Your task to perform on an android device: Do I have any events this weekend? Image 0: 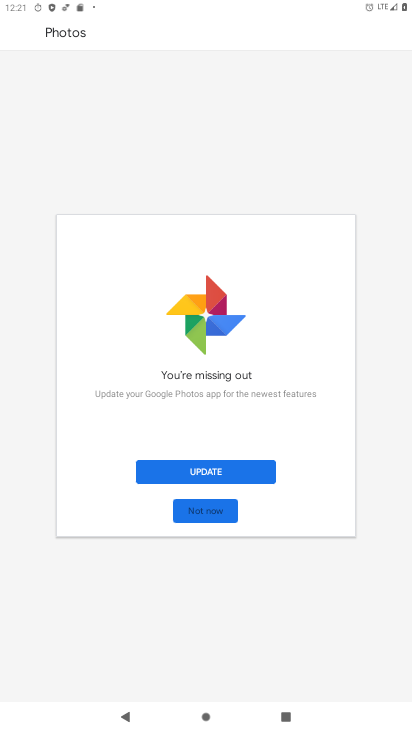
Step 0: press home button
Your task to perform on an android device: Do I have any events this weekend? Image 1: 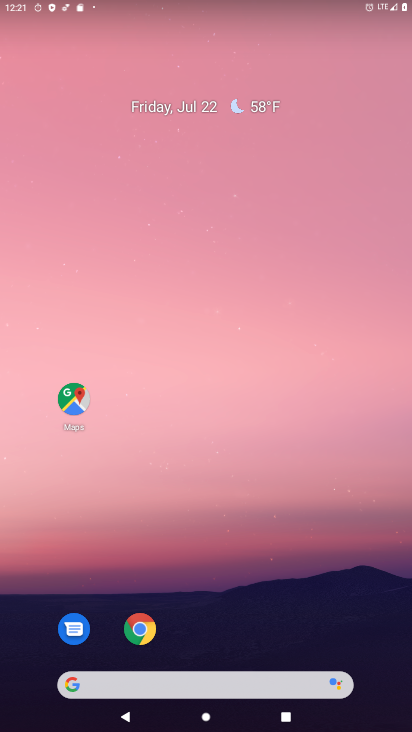
Step 1: drag from (321, 596) to (363, 130)
Your task to perform on an android device: Do I have any events this weekend? Image 2: 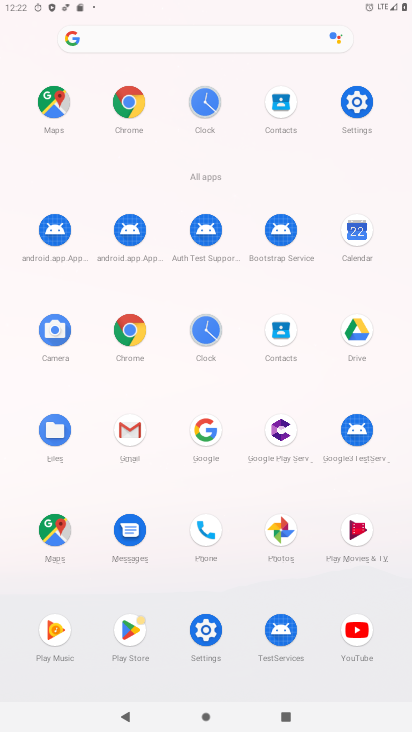
Step 2: click (355, 243)
Your task to perform on an android device: Do I have any events this weekend? Image 3: 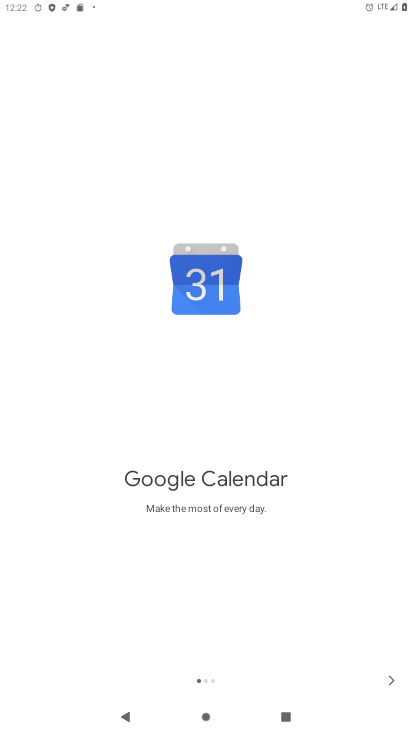
Step 3: click (384, 683)
Your task to perform on an android device: Do I have any events this weekend? Image 4: 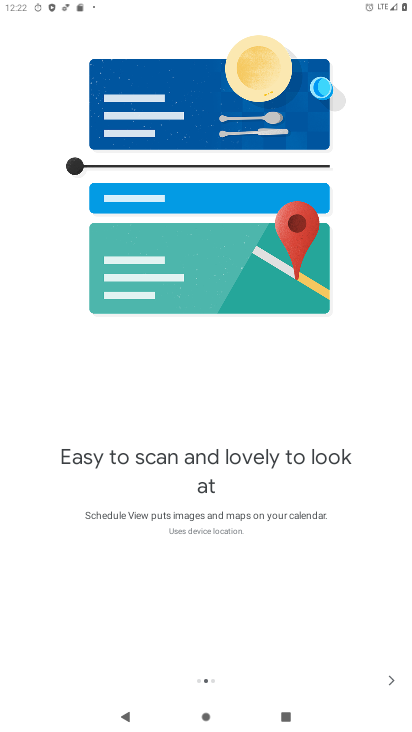
Step 4: click (384, 683)
Your task to perform on an android device: Do I have any events this weekend? Image 5: 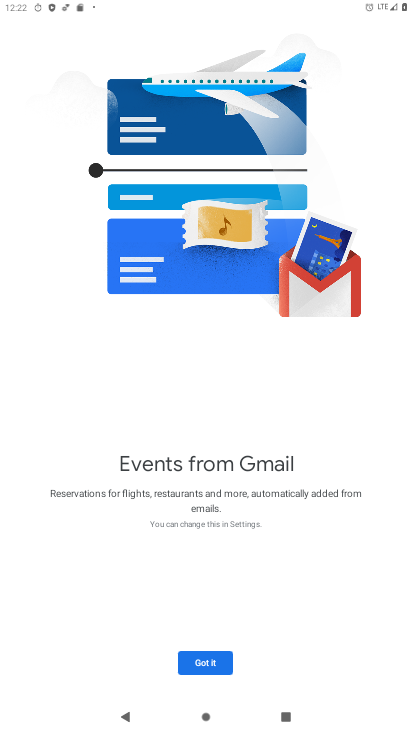
Step 5: click (217, 670)
Your task to perform on an android device: Do I have any events this weekend? Image 6: 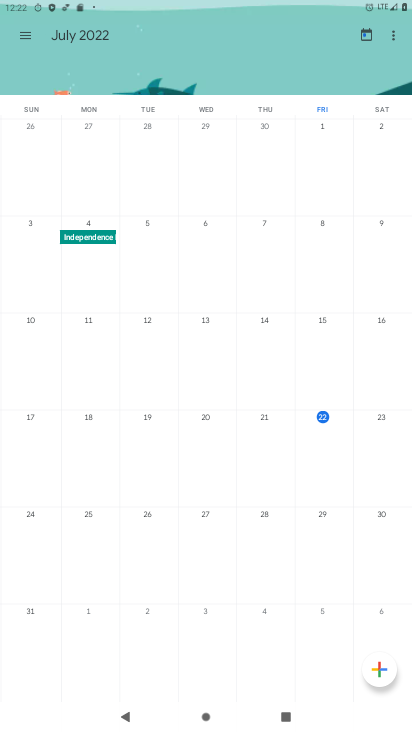
Step 6: click (22, 34)
Your task to perform on an android device: Do I have any events this weekend? Image 7: 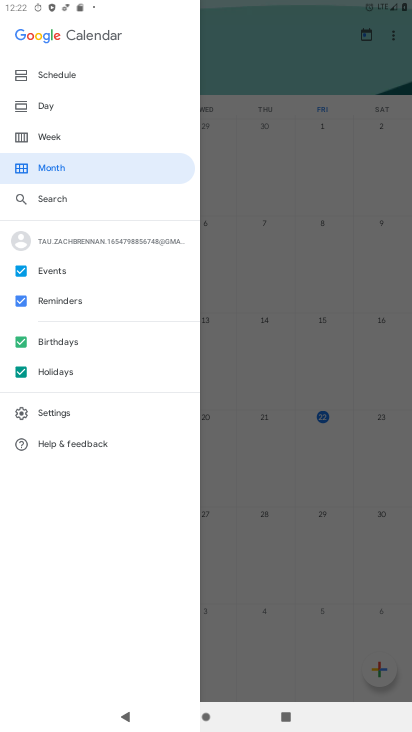
Step 7: click (60, 70)
Your task to perform on an android device: Do I have any events this weekend? Image 8: 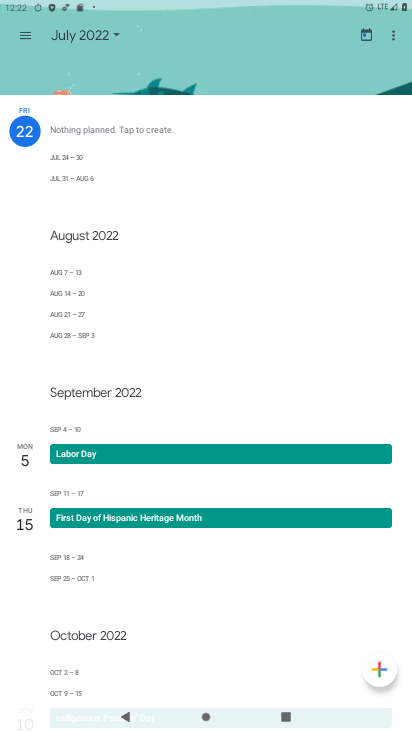
Step 8: task complete